Your task to perform on an android device: Open Android settings Image 0: 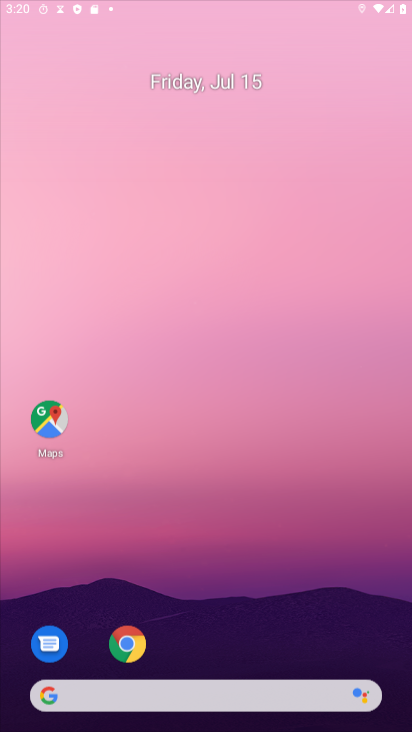
Step 0: drag from (285, 712) to (237, 97)
Your task to perform on an android device: Open Android settings Image 1: 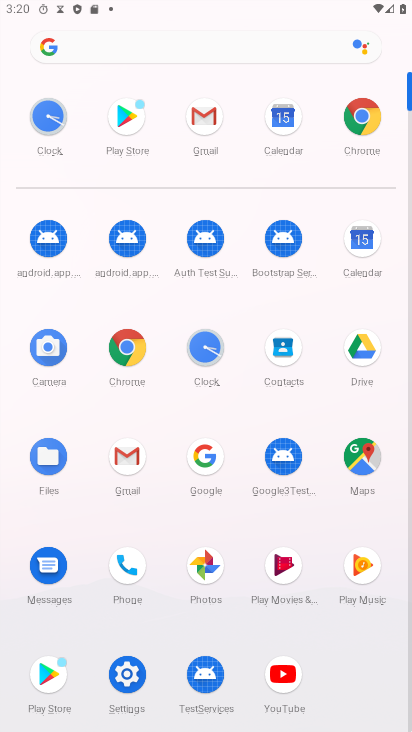
Step 1: click (116, 663)
Your task to perform on an android device: Open Android settings Image 2: 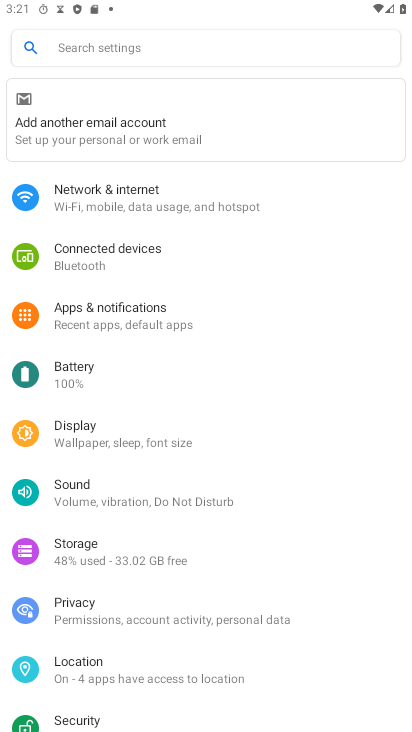
Step 2: drag from (166, 688) to (213, 167)
Your task to perform on an android device: Open Android settings Image 3: 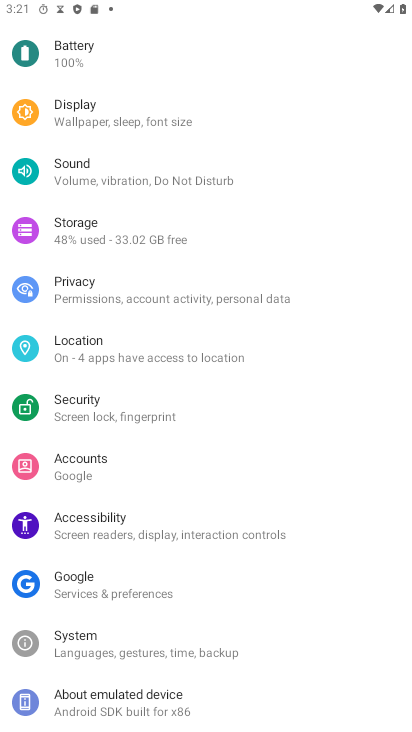
Step 3: click (155, 699)
Your task to perform on an android device: Open Android settings Image 4: 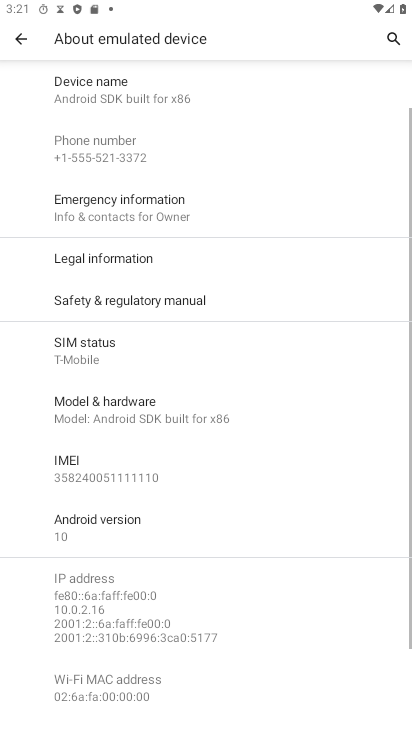
Step 4: task complete